Your task to perform on an android device: Empty the shopping cart on walmart. Add "asus zenbook" to the cart on walmart, then select checkout. Image 0: 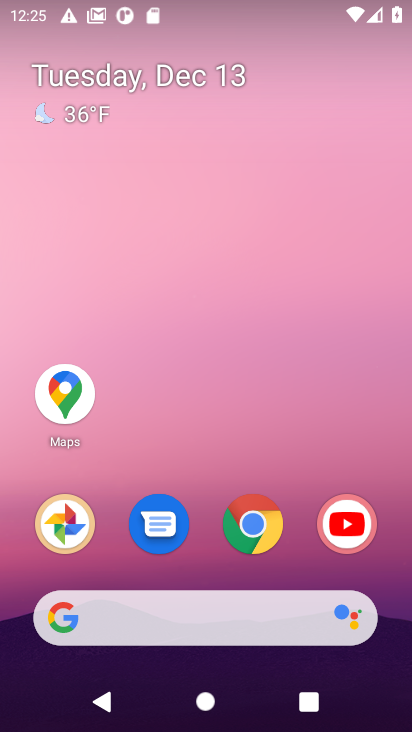
Step 0: click (255, 527)
Your task to perform on an android device: Empty the shopping cart on walmart. Add "asus zenbook" to the cart on walmart, then select checkout. Image 1: 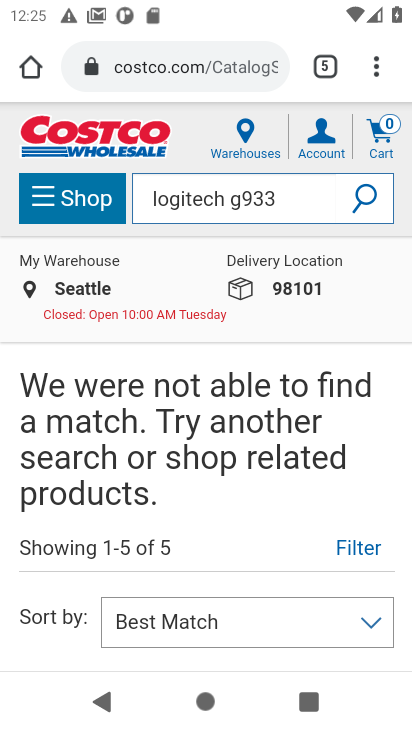
Step 1: click (151, 67)
Your task to perform on an android device: Empty the shopping cart on walmart. Add "asus zenbook" to the cart on walmart, then select checkout. Image 2: 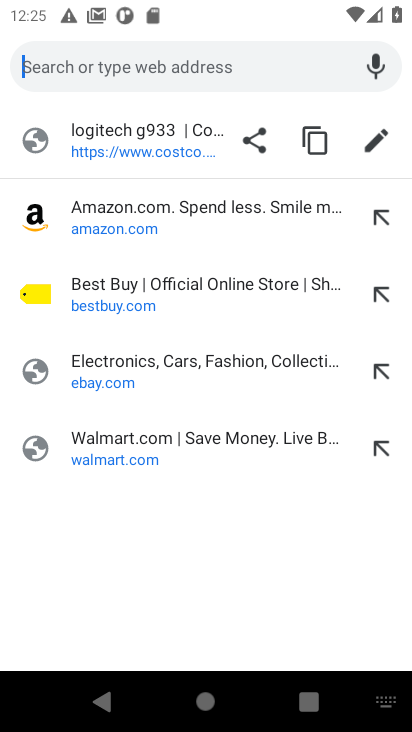
Step 2: click (92, 457)
Your task to perform on an android device: Empty the shopping cart on walmart. Add "asus zenbook" to the cart on walmart, then select checkout. Image 3: 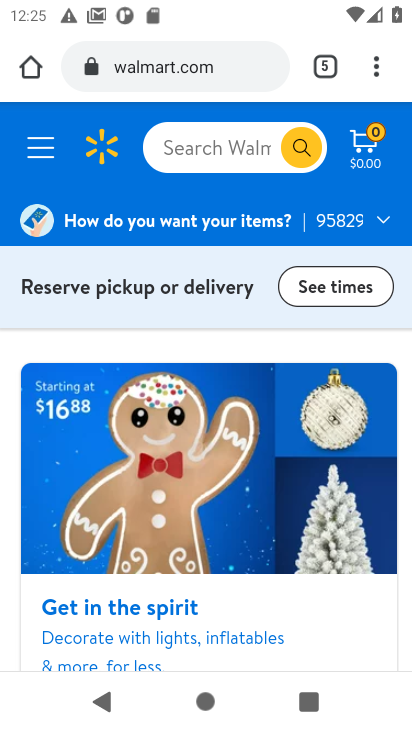
Step 3: click (362, 154)
Your task to perform on an android device: Empty the shopping cart on walmart. Add "asus zenbook" to the cart on walmart, then select checkout. Image 4: 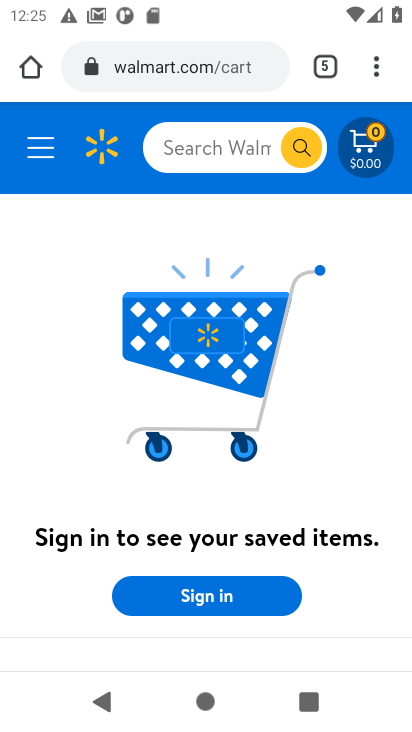
Step 4: click (187, 154)
Your task to perform on an android device: Empty the shopping cart on walmart. Add "asus zenbook" to the cart on walmart, then select checkout. Image 5: 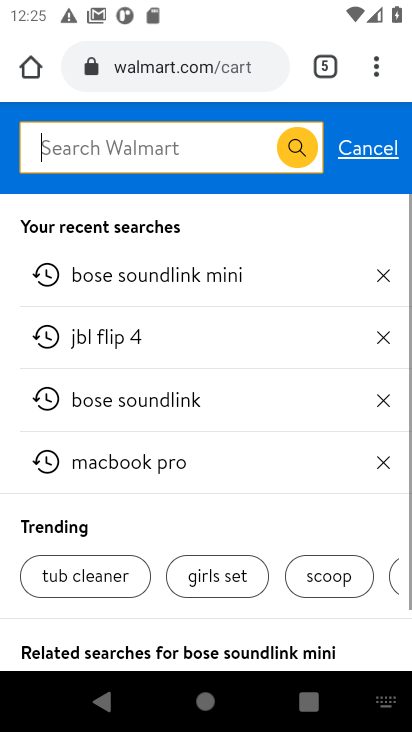
Step 5: type "asus zenbook"
Your task to perform on an android device: Empty the shopping cart on walmart. Add "asus zenbook" to the cart on walmart, then select checkout. Image 6: 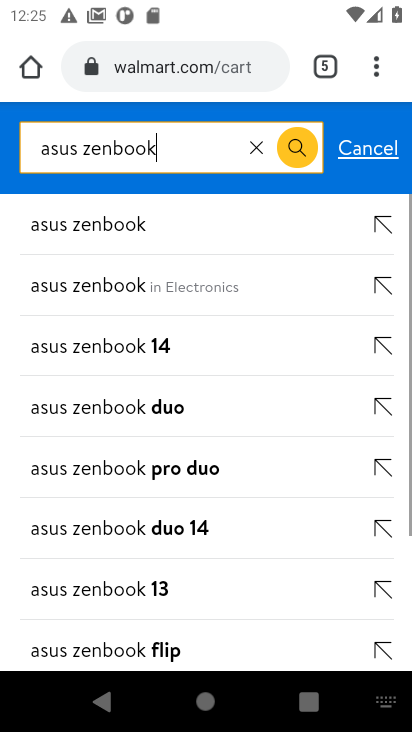
Step 6: click (82, 229)
Your task to perform on an android device: Empty the shopping cart on walmart. Add "asus zenbook" to the cart on walmart, then select checkout. Image 7: 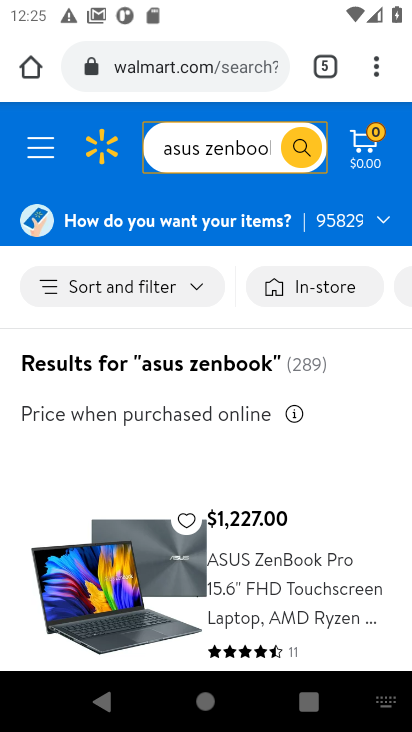
Step 7: drag from (161, 444) to (151, 206)
Your task to perform on an android device: Empty the shopping cart on walmart. Add "asus zenbook" to the cart on walmart, then select checkout. Image 8: 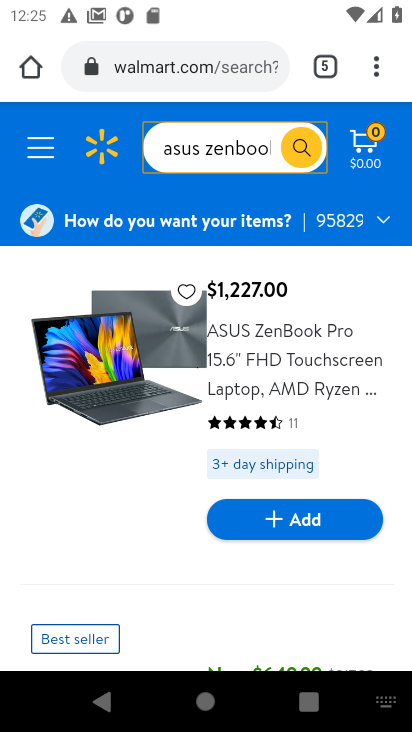
Step 8: click (292, 518)
Your task to perform on an android device: Empty the shopping cart on walmart. Add "asus zenbook" to the cart on walmart, then select checkout. Image 9: 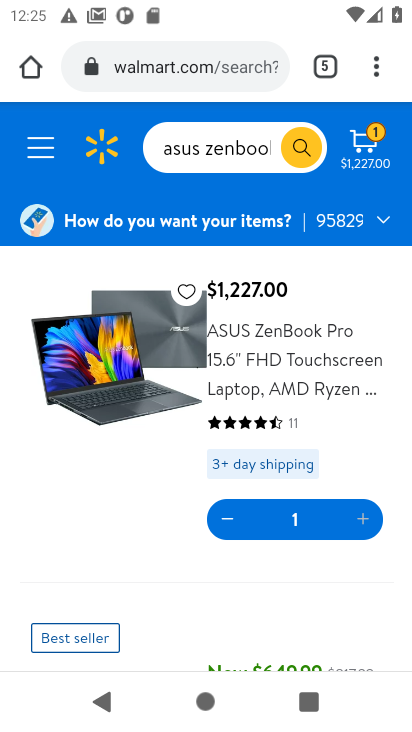
Step 9: click (370, 158)
Your task to perform on an android device: Empty the shopping cart on walmart. Add "asus zenbook" to the cart on walmart, then select checkout. Image 10: 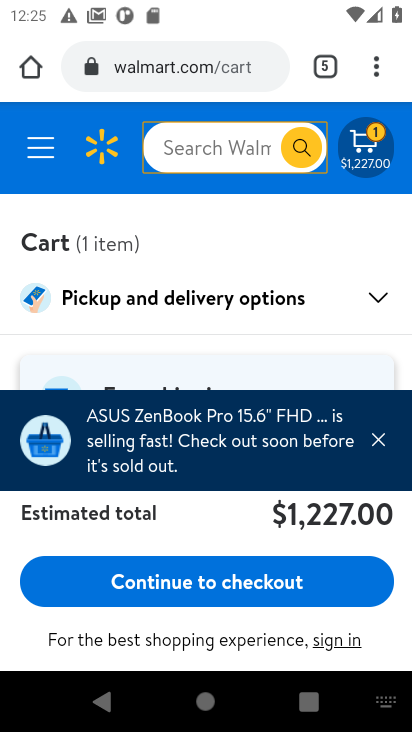
Step 10: click (188, 594)
Your task to perform on an android device: Empty the shopping cart on walmart. Add "asus zenbook" to the cart on walmart, then select checkout. Image 11: 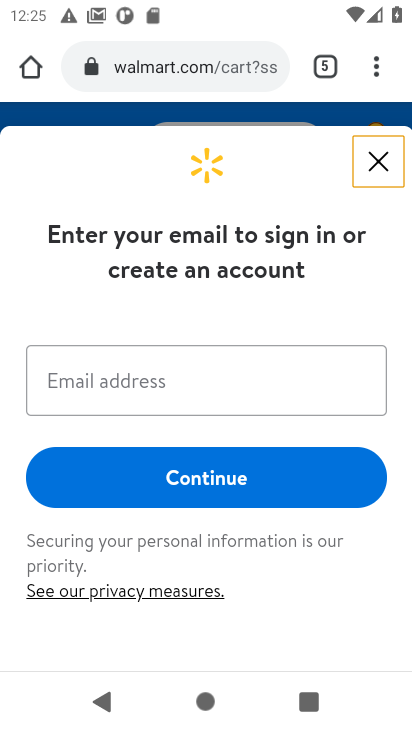
Step 11: task complete